Your task to perform on an android device: clear history in the chrome app Image 0: 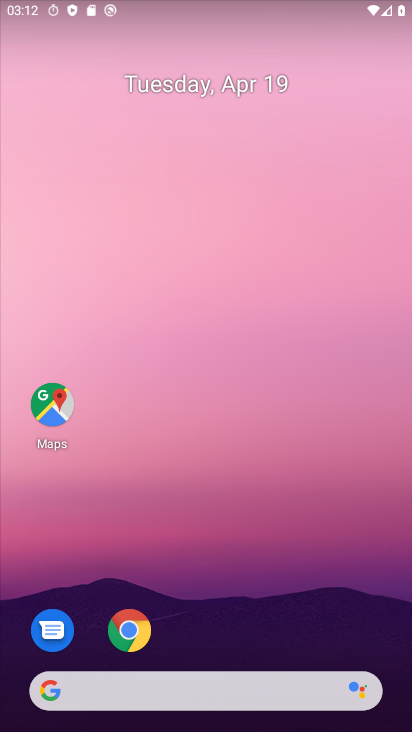
Step 0: click (129, 631)
Your task to perform on an android device: clear history in the chrome app Image 1: 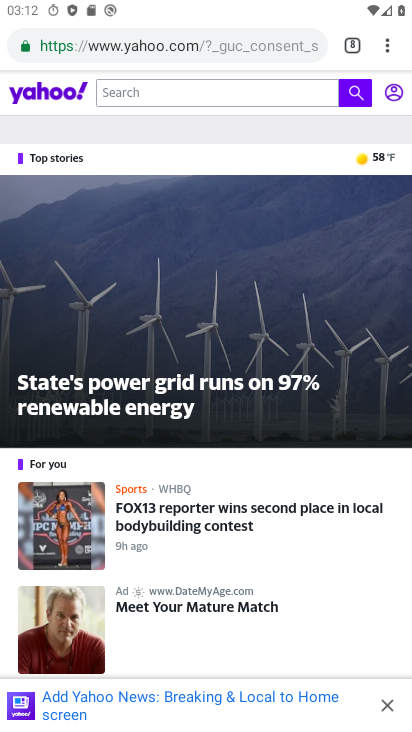
Step 1: click (389, 47)
Your task to perform on an android device: clear history in the chrome app Image 2: 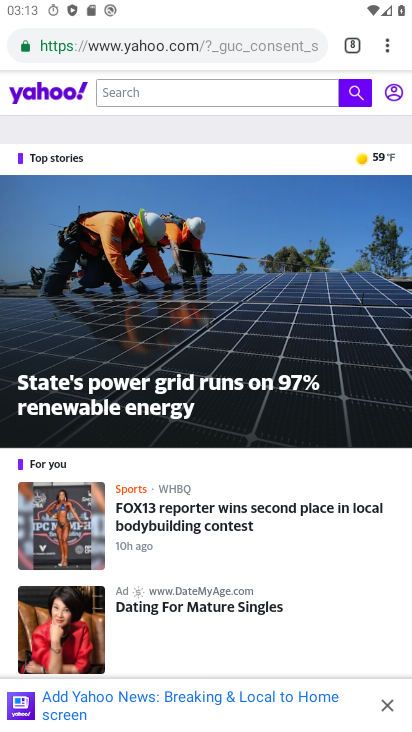
Step 2: click (390, 47)
Your task to perform on an android device: clear history in the chrome app Image 3: 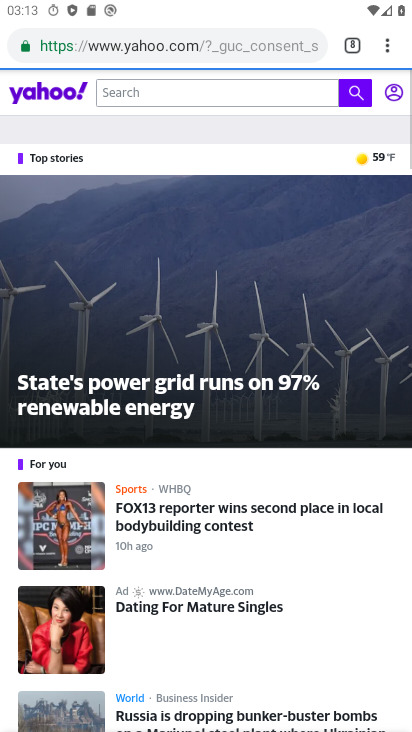
Step 3: click (390, 47)
Your task to perform on an android device: clear history in the chrome app Image 4: 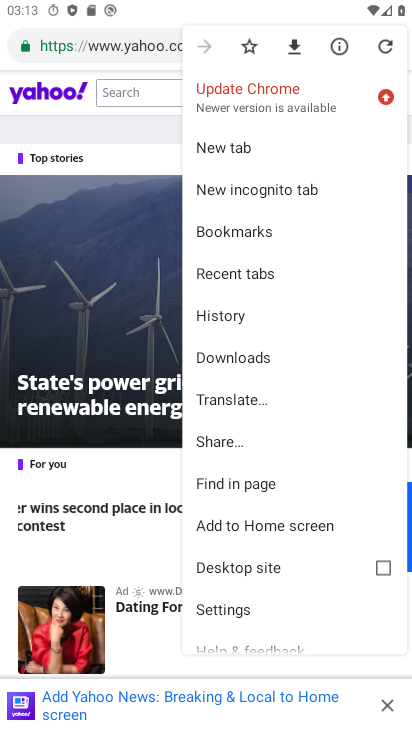
Step 4: click (233, 315)
Your task to perform on an android device: clear history in the chrome app Image 5: 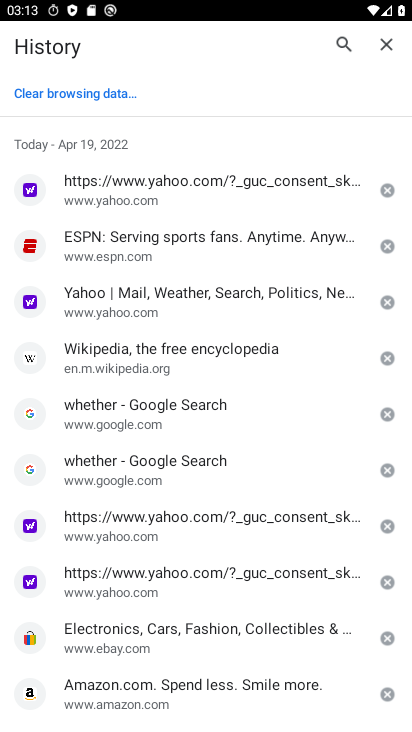
Step 5: click (103, 94)
Your task to perform on an android device: clear history in the chrome app Image 6: 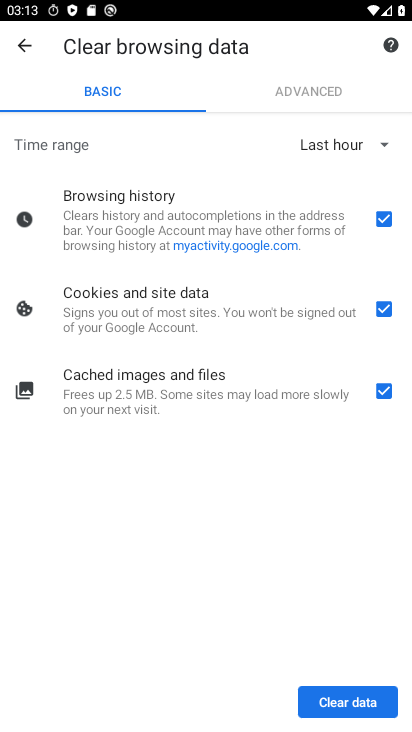
Step 6: click (331, 693)
Your task to perform on an android device: clear history in the chrome app Image 7: 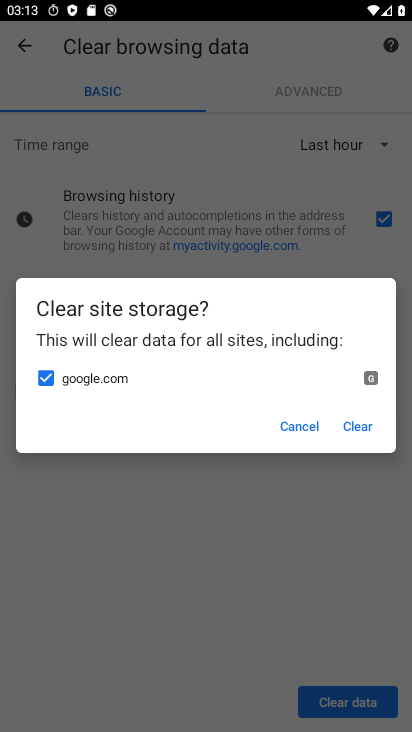
Step 7: click (352, 419)
Your task to perform on an android device: clear history in the chrome app Image 8: 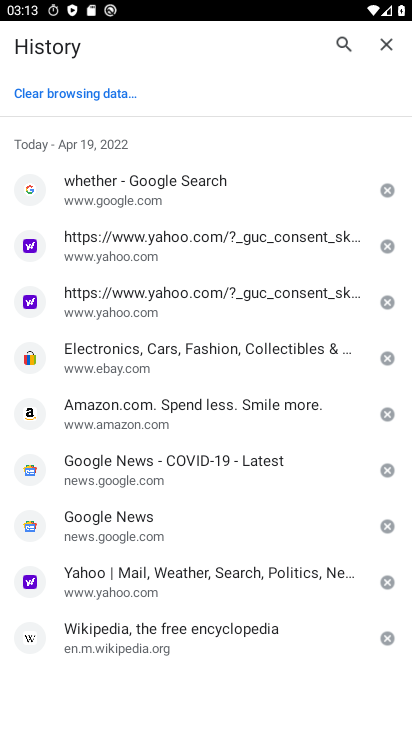
Step 8: click (97, 96)
Your task to perform on an android device: clear history in the chrome app Image 9: 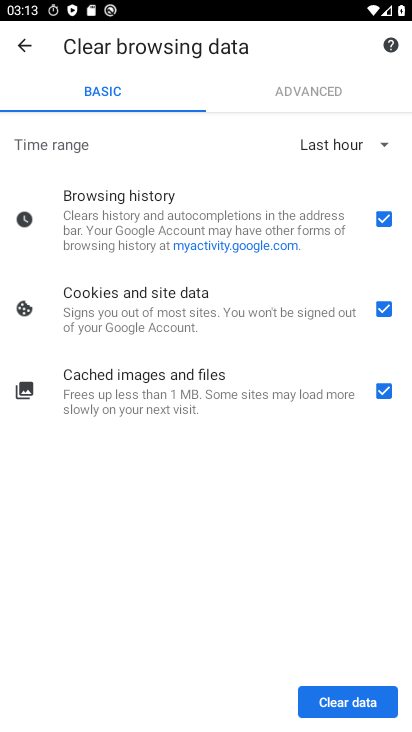
Step 9: click (353, 701)
Your task to perform on an android device: clear history in the chrome app Image 10: 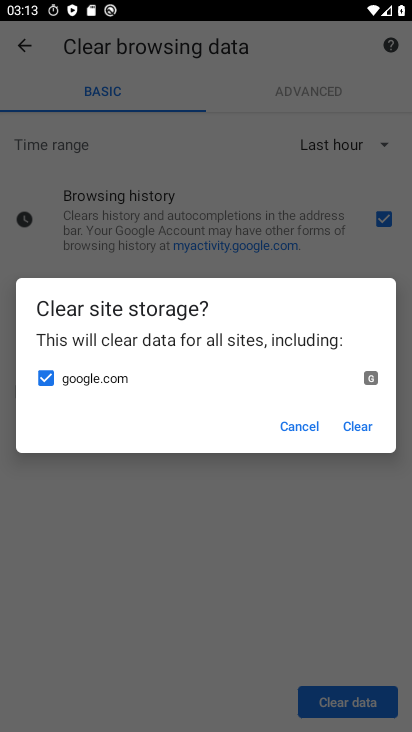
Step 10: click (360, 428)
Your task to perform on an android device: clear history in the chrome app Image 11: 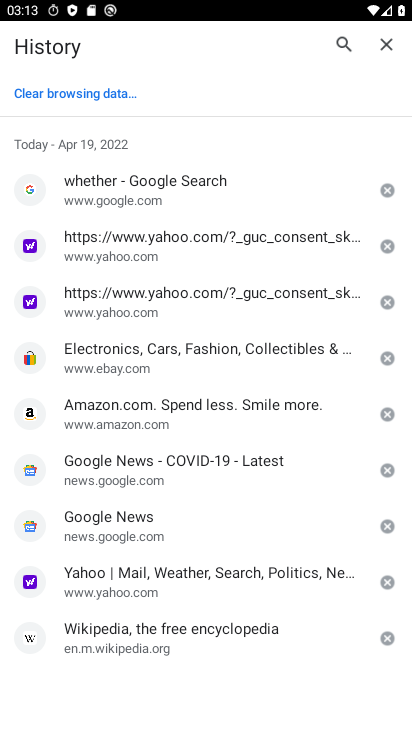
Step 11: task complete